Your task to perform on an android device: turn off picture-in-picture Image 0: 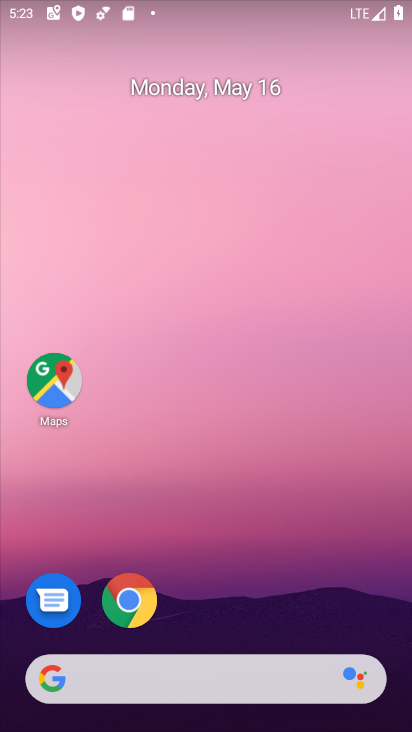
Step 0: drag from (224, 634) to (392, 12)
Your task to perform on an android device: turn off picture-in-picture Image 1: 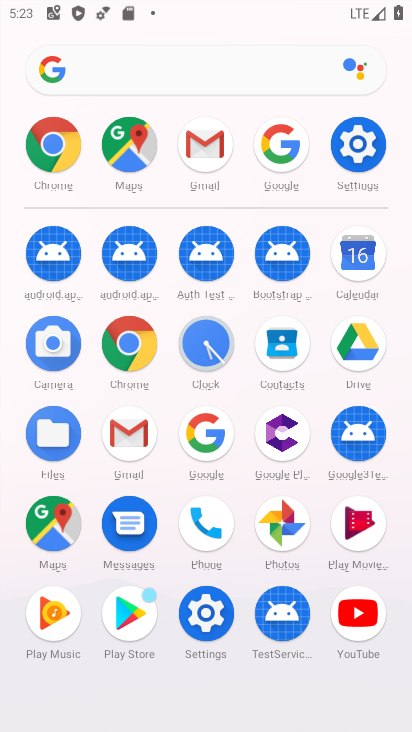
Step 1: click (368, 145)
Your task to perform on an android device: turn off picture-in-picture Image 2: 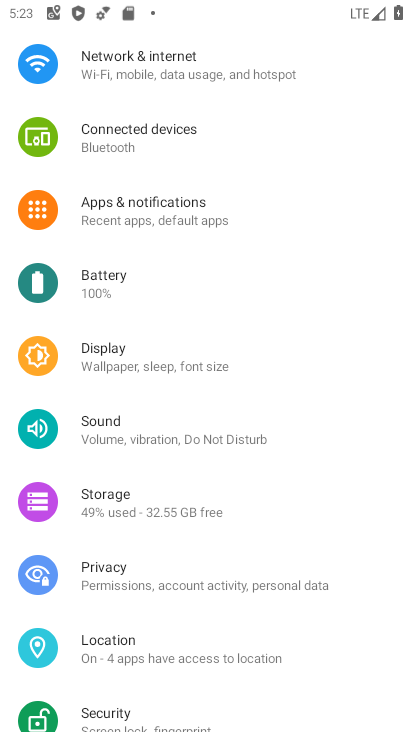
Step 2: click (140, 226)
Your task to perform on an android device: turn off picture-in-picture Image 3: 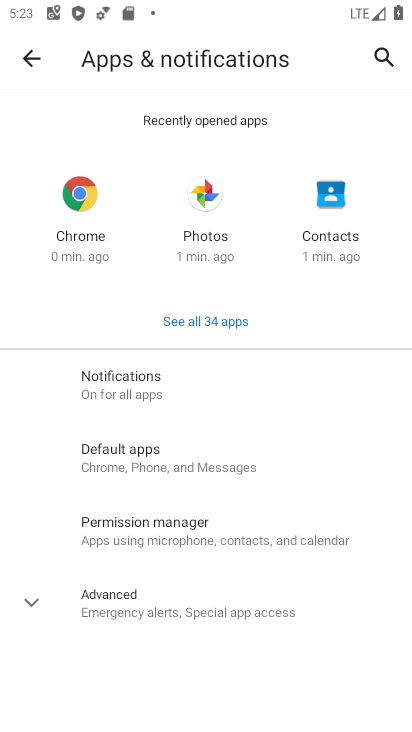
Step 3: click (110, 364)
Your task to perform on an android device: turn off picture-in-picture Image 4: 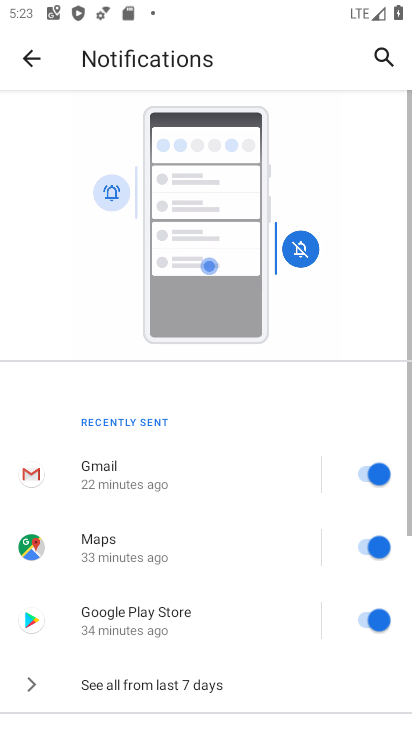
Step 4: drag from (201, 584) to (167, 124)
Your task to perform on an android device: turn off picture-in-picture Image 5: 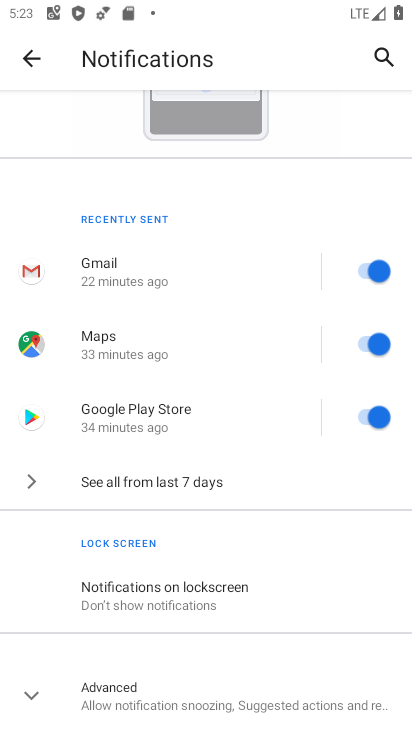
Step 5: click (182, 689)
Your task to perform on an android device: turn off picture-in-picture Image 6: 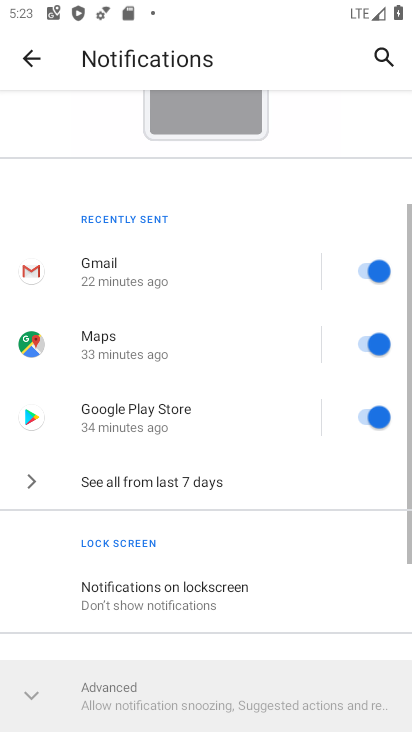
Step 6: task complete